Your task to perform on an android device: What's the weather today? Image 0: 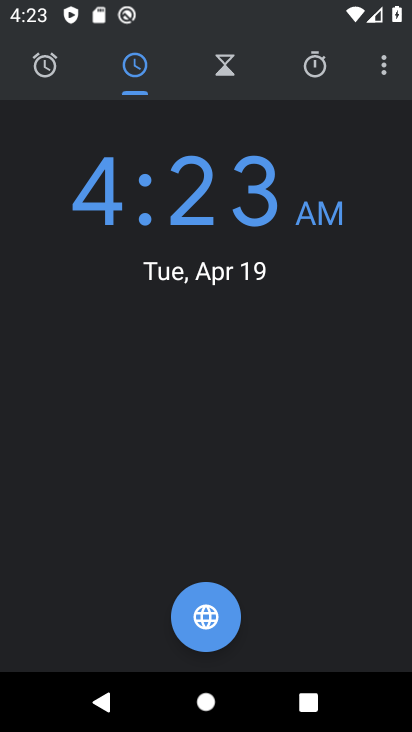
Step 0: press home button
Your task to perform on an android device: What's the weather today? Image 1: 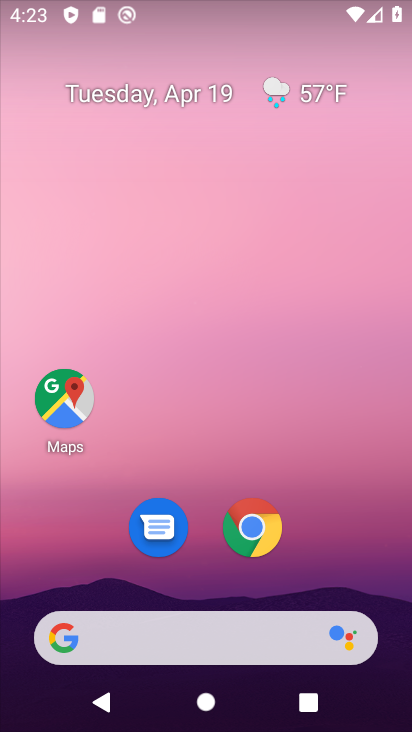
Step 1: click (284, 91)
Your task to perform on an android device: What's the weather today? Image 2: 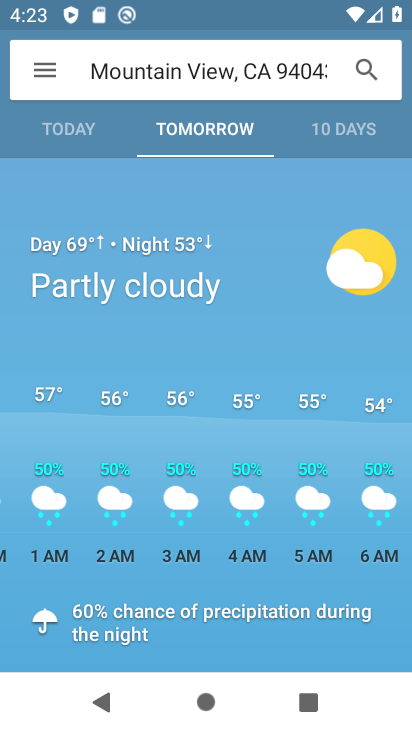
Step 2: click (78, 143)
Your task to perform on an android device: What's the weather today? Image 3: 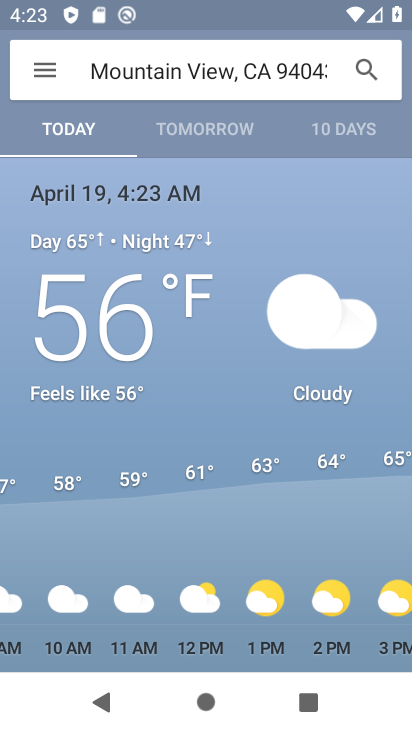
Step 3: task complete